Your task to perform on an android device: Go to network settings Image 0: 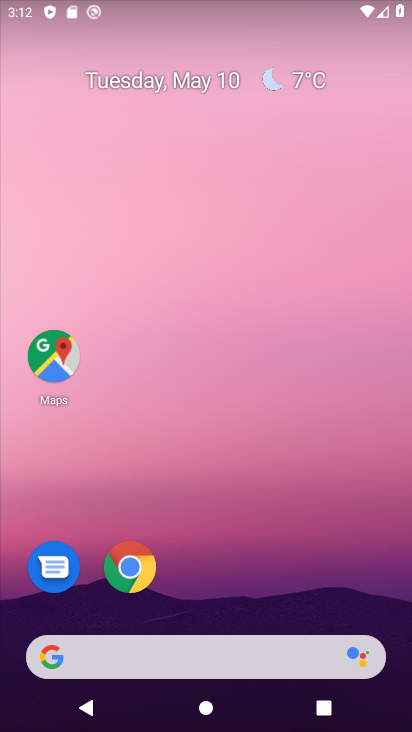
Step 0: drag from (249, 579) to (265, 41)
Your task to perform on an android device: Go to network settings Image 1: 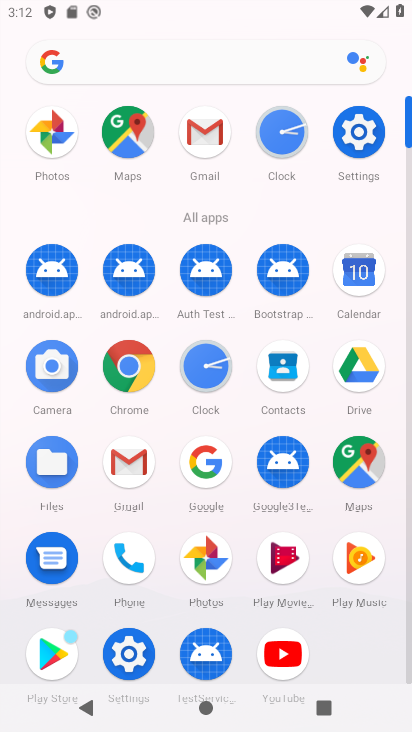
Step 1: click (360, 134)
Your task to perform on an android device: Go to network settings Image 2: 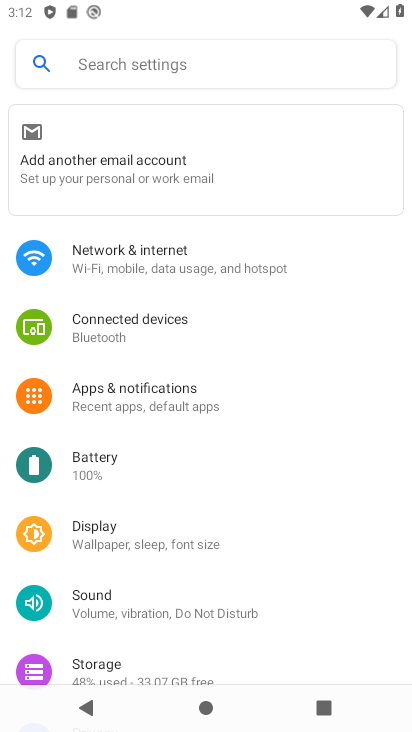
Step 2: click (112, 259)
Your task to perform on an android device: Go to network settings Image 3: 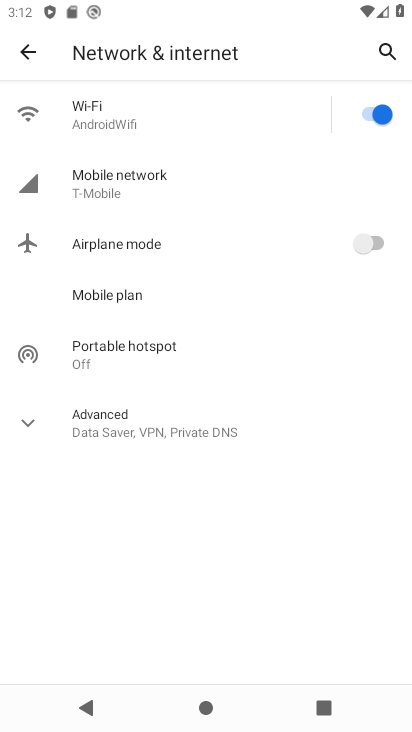
Step 3: click (96, 115)
Your task to perform on an android device: Go to network settings Image 4: 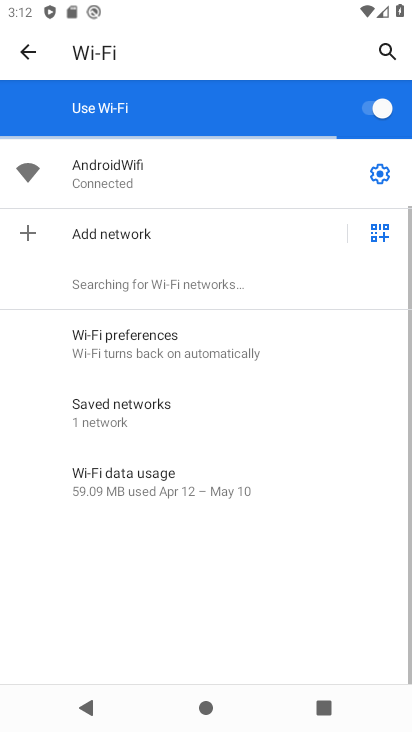
Step 4: click (379, 167)
Your task to perform on an android device: Go to network settings Image 5: 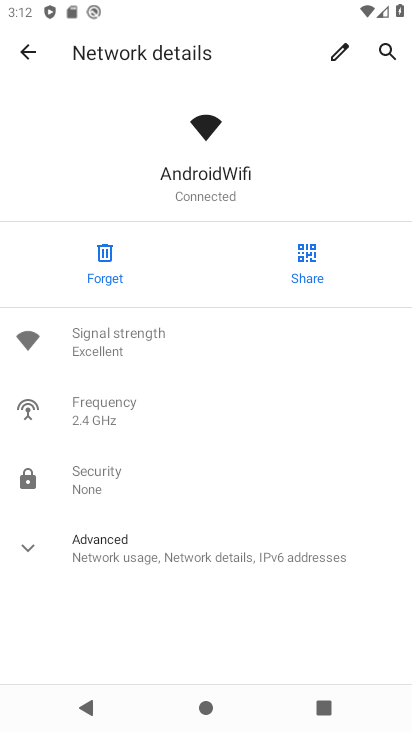
Step 5: task complete